Your task to perform on an android device: Open Youtube and go to the subscriptions tab Image 0: 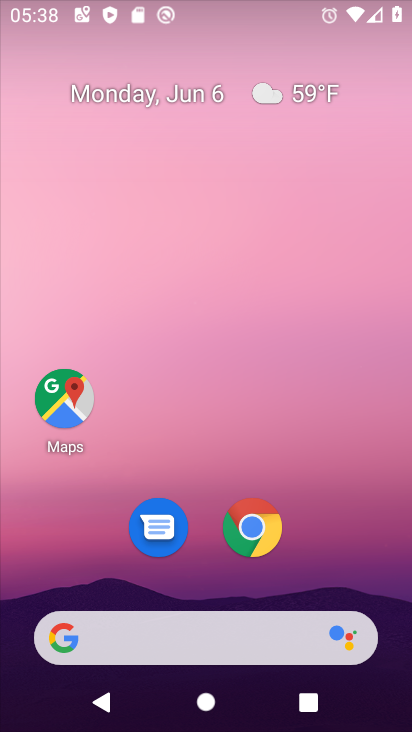
Step 0: click (57, 393)
Your task to perform on an android device: Open Youtube and go to the subscriptions tab Image 1: 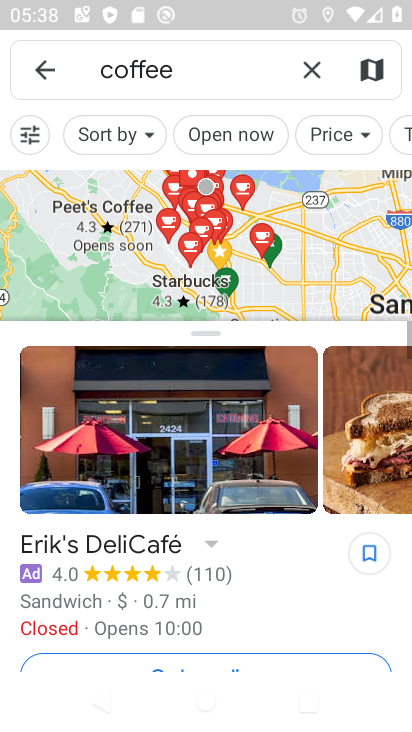
Step 1: press home button
Your task to perform on an android device: Open Youtube and go to the subscriptions tab Image 2: 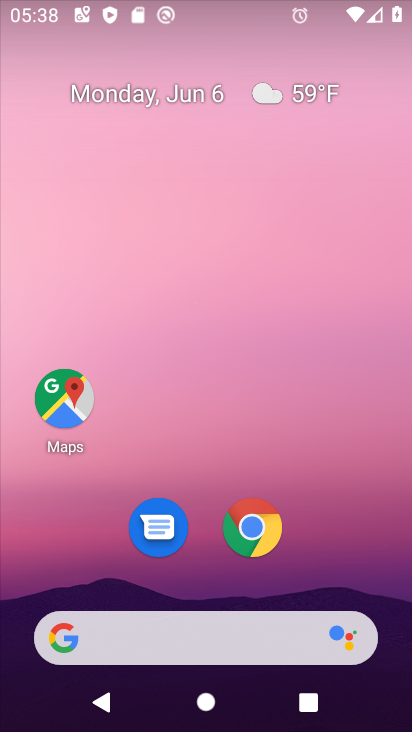
Step 2: drag from (403, 696) to (317, 156)
Your task to perform on an android device: Open Youtube and go to the subscriptions tab Image 3: 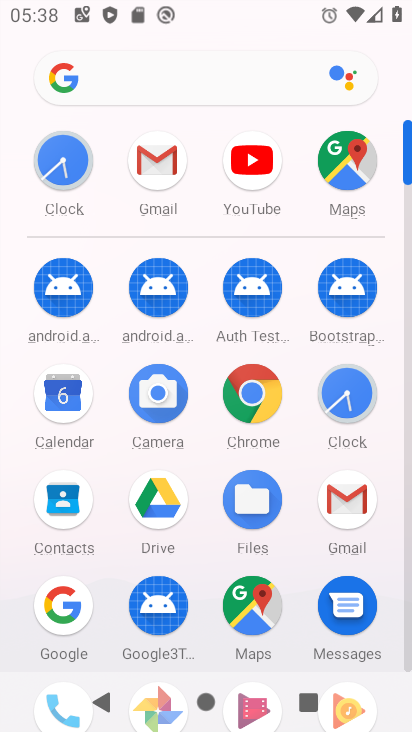
Step 3: click (257, 165)
Your task to perform on an android device: Open Youtube and go to the subscriptions tab Image 4: 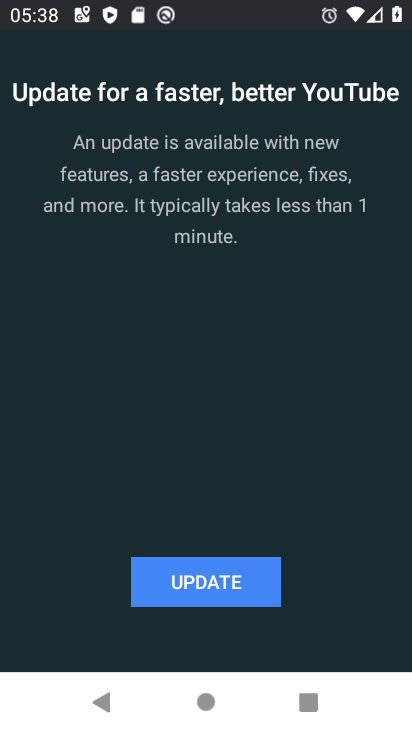
Step 4: click (236, 589)
Your task to perform on an android device: Open Youtube and go to the subscriptions tab Image 5: 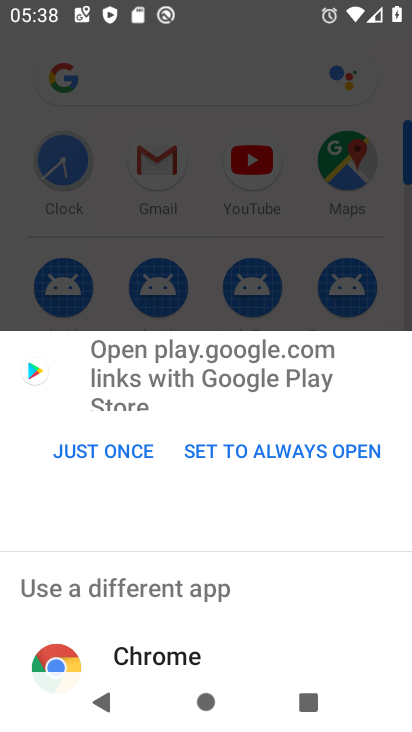
Step 5: drag from (256, 613) to (241, 301)
Your task to perform on an android device: Open Youtube and go to the subscriptions tab Image 6: 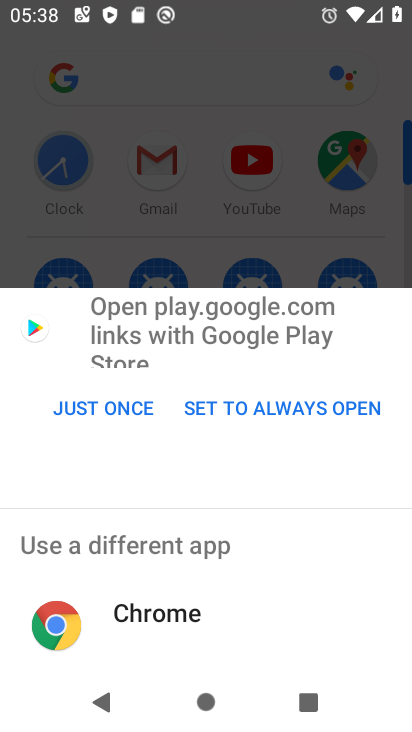
Step 6: press back button
Your task to perform on an android device: Open Youtube and go to the subscriptions tab Image 7: 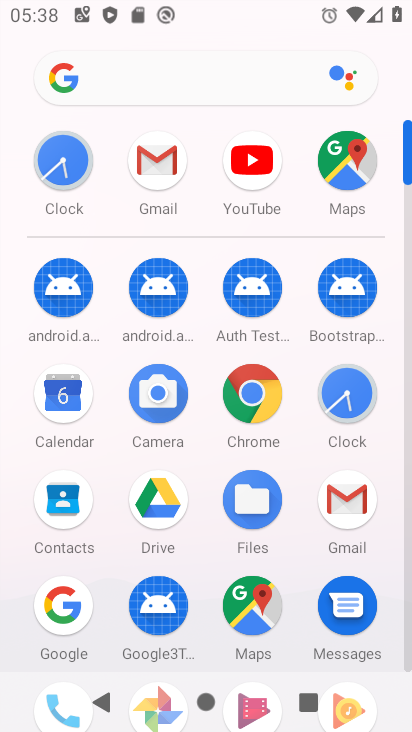
Step 7: click (207, 277)
Your task to perform on an android device: Open Youtube and go to the subscriptions tab Image 8: 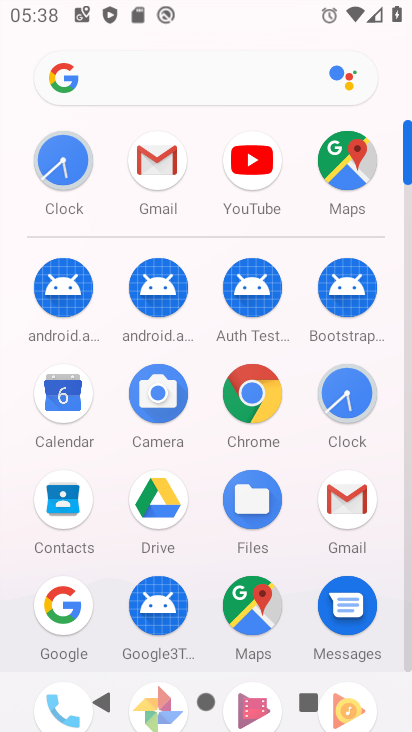
Step 8: click (262, 141)
Your task to perform on an android device: Open Youtube and go to the subscriptions tab Image 9: 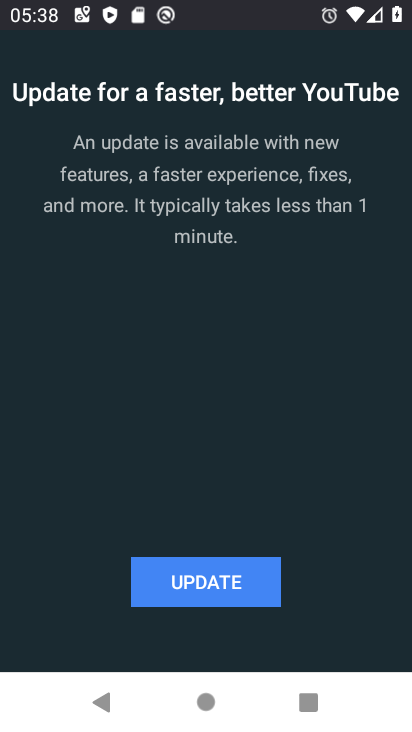
Step 9: click (238, 584)
Your task to perform on an android device: Open Youtube and go to the subscriptions tab Image 10: 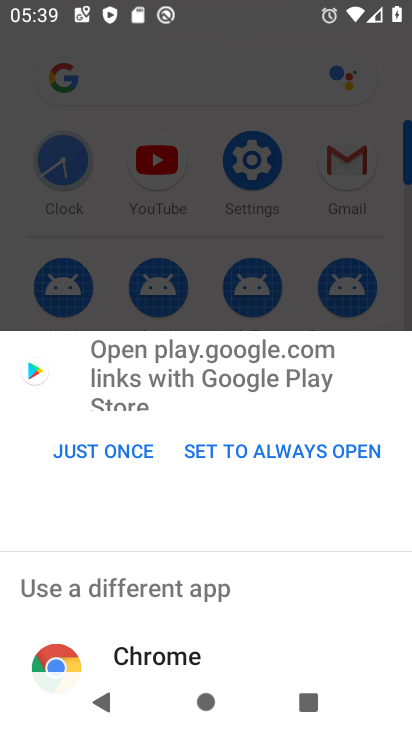
Step 10: click (124, 444)
Your task to perform on an android device: Open Youtube and go to the subscriptions tab Image 11: 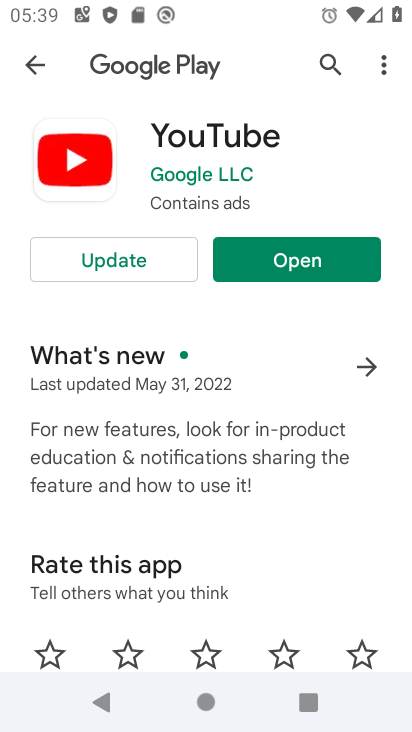
Step 11: click (157, 253)
Your task to perform on an android device: Open Youtube and go to the subscriptions tab Image 12: 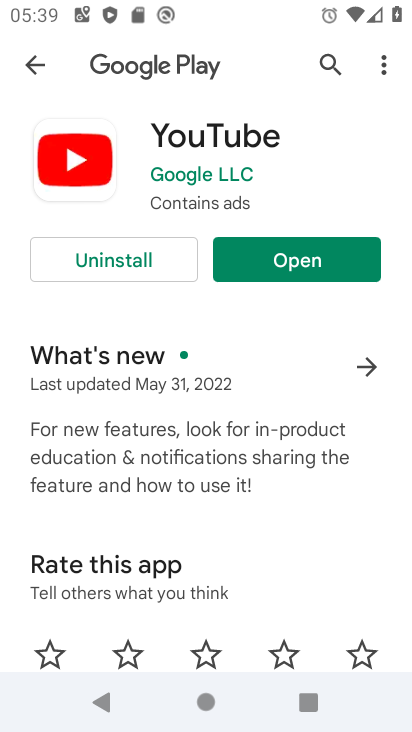
Step 12: click (284, 265)
Your task to perform on an android device: Open Youtube and go to the subscriptions tab Image 13: 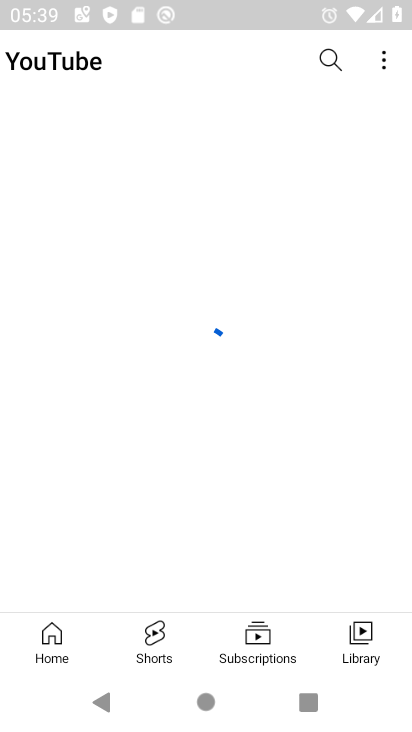
Step 13: click (260, 655)
Your task to perform on an android device: Open Youtube and go to the subscriptions tab Image 14: 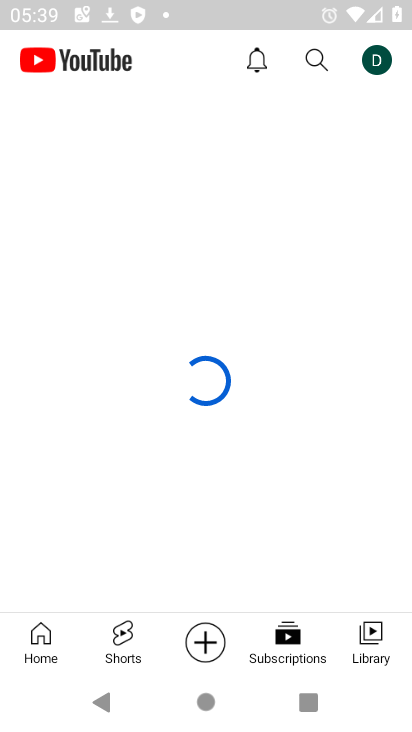
Step 14: task complete